Your task to perform on an android device: toggle notification dots Image 0: 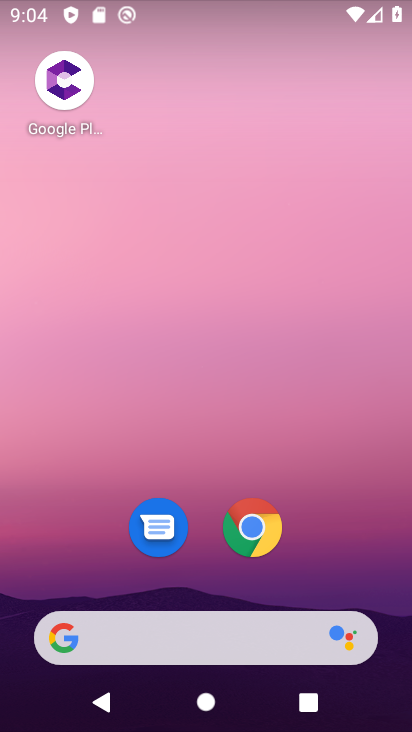
Step 0: click (244, 529)
Your task to perform on an android device: toggle notification dots Image 1: 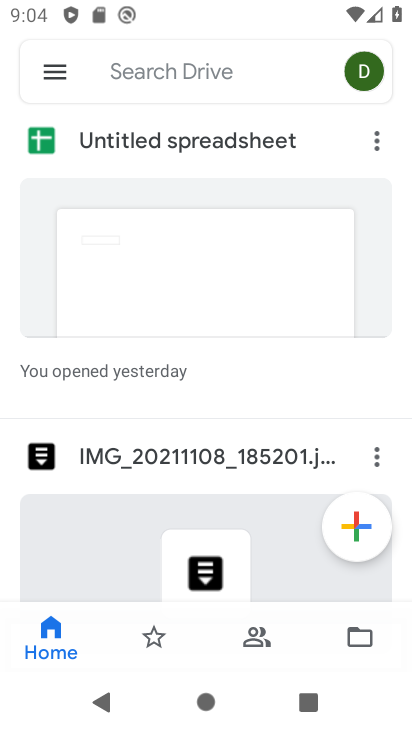
Step 1: press home button
Your task to perform on an android device: toggle notification dots Image 2: 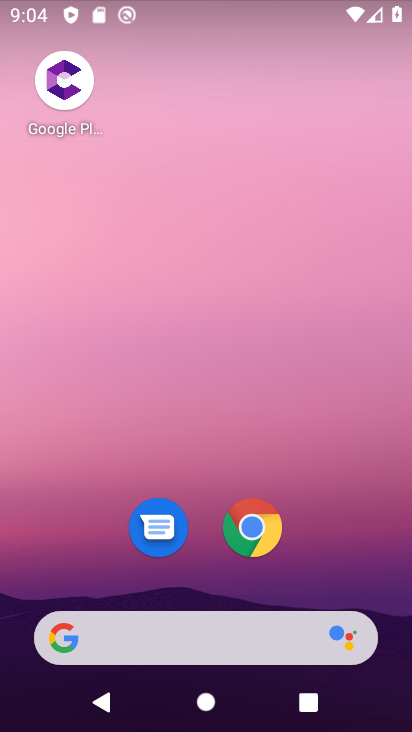
Step 2: drag from (389, 708) to (385, 276)
Your task to perform on an android device: toggle notification dots Image 3: 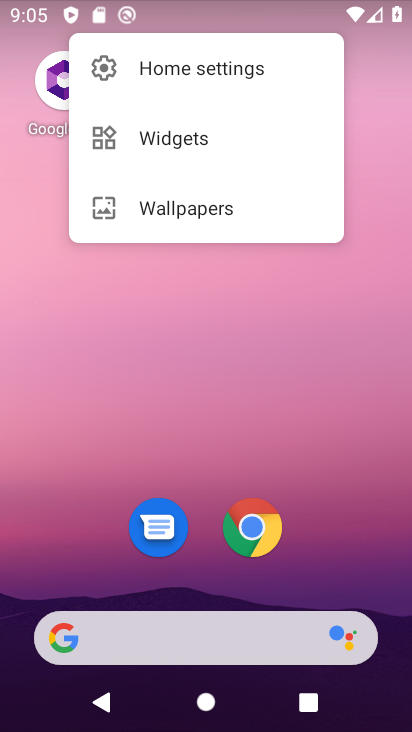
Step 3: press home button
Your task to perform on an android device: toggle notification dots Image 4: 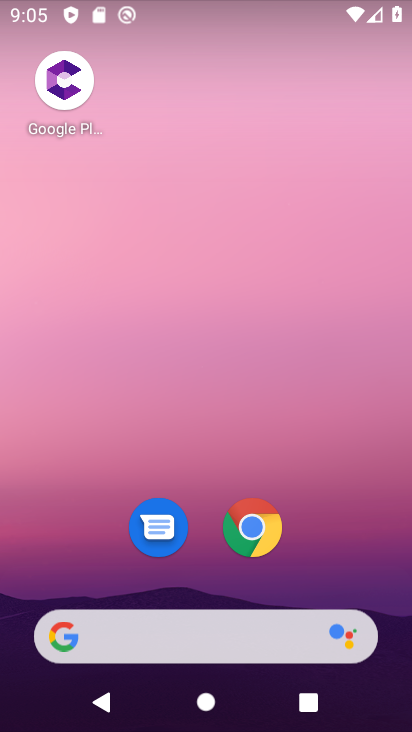
Step 4: drag from (400, 716) to (354, 222)
Your task to perform on an android device: toggle notification dots Image 5: 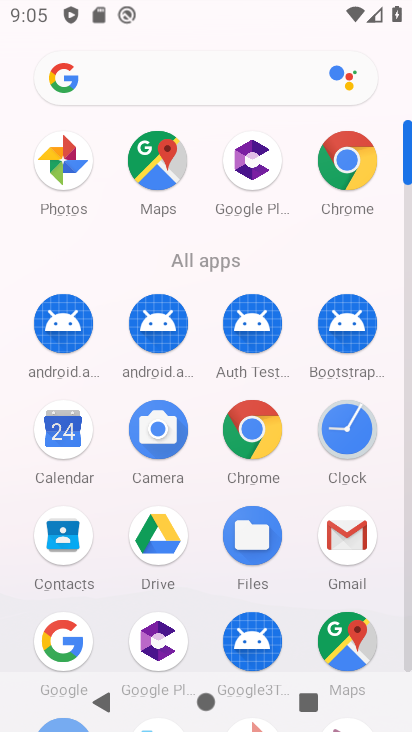
Step 5: drag from (199, 659) to (184, 315)
Your task to perform on an android device: toggle notification dots Image 6: 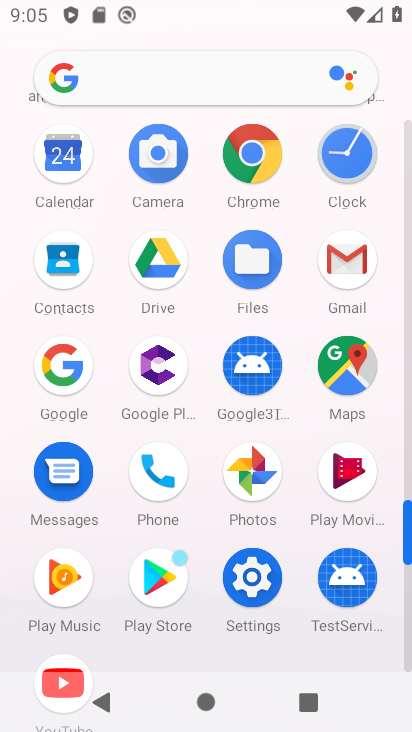
Step 6: click (244, 584)
Your task to perform on an android device: toggle notification dots Image 7: 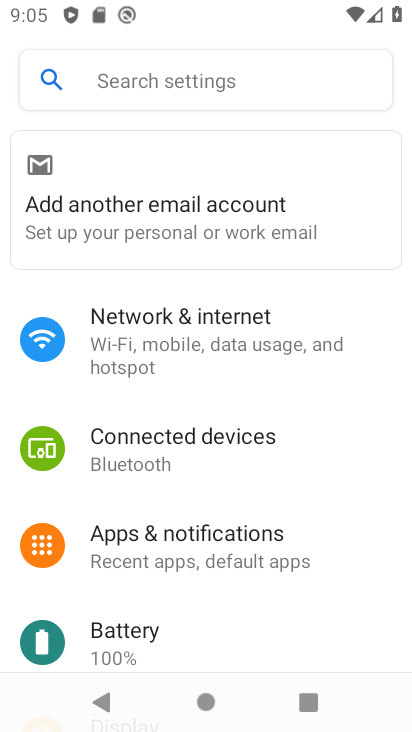
Step 7: click (162, 532)
Your task to perform on an android device: toggle notification dots Image 8: 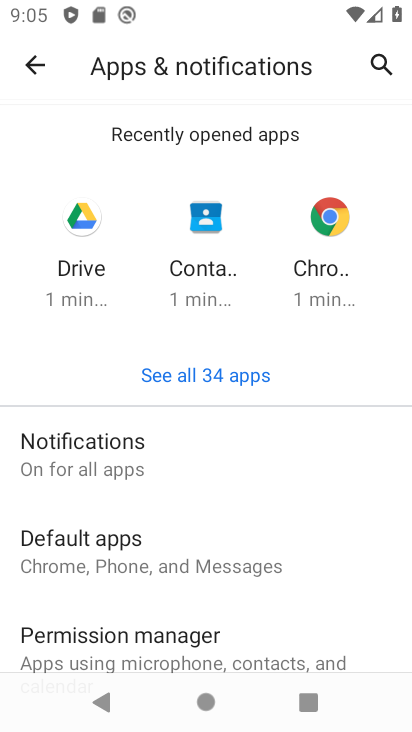
Step 8: click (91, 449)
Your task to perform on an android device: toggle notification dots Image 9: 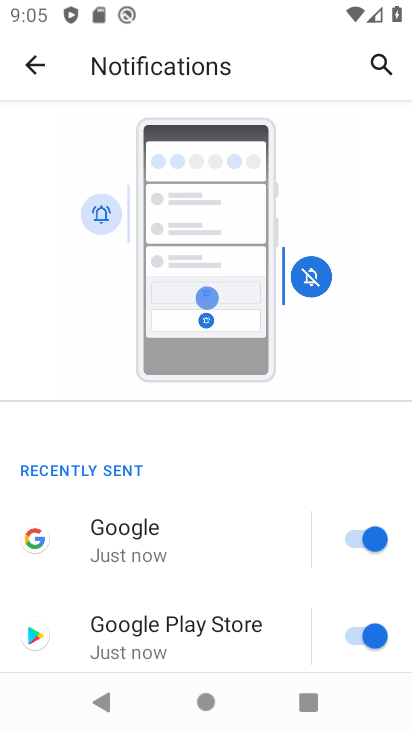
Step 9: drag from (287, 635) to (263, 197)
Your task to perform on an android device: toggle notification dots Image 10: 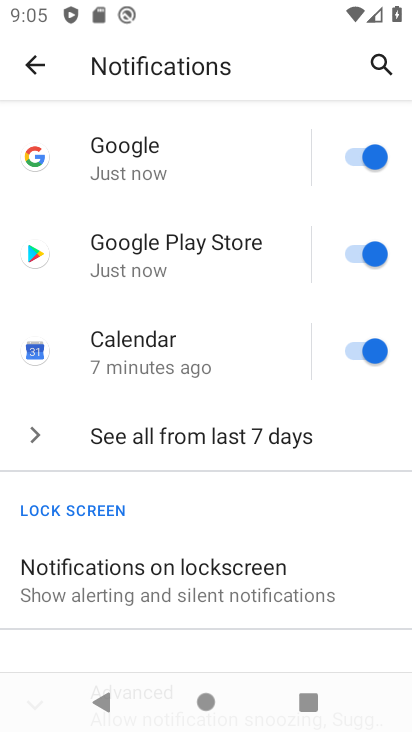
Step 10: click (193, 573)
Your task to perform on an android device: toggle notification dots Image 11: 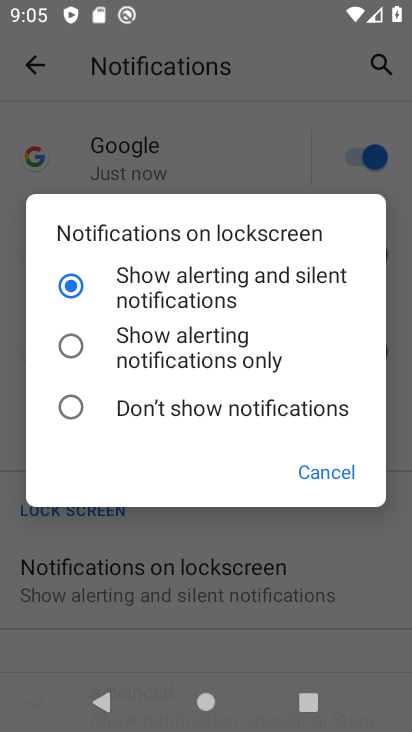
Step 11: press back button
Your task to perform on an android device: toggle notification dots Image 12: 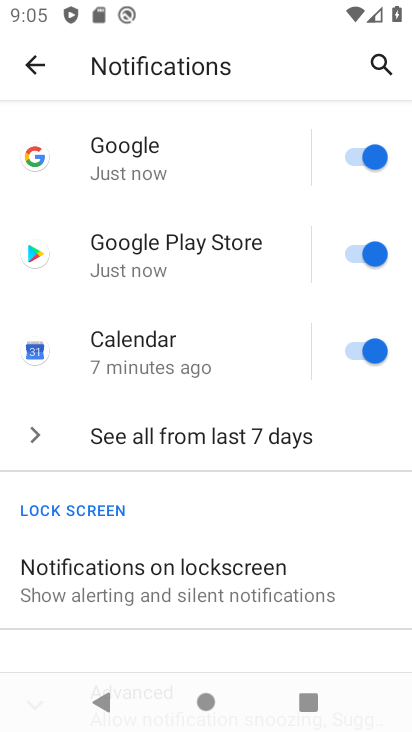
Step 12: drag from (263, 625) to (227, 204)
Your task to perform on an android device: toggle notification dots Image 13: 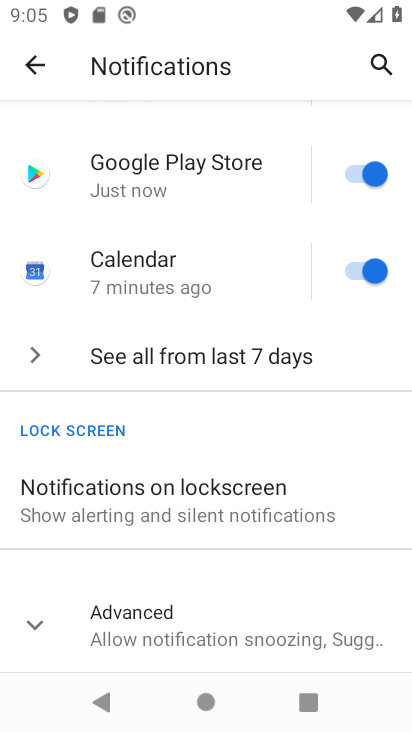
Step 13: drag from (205, 626) to (209, 354)
Your task to perform on an android device: toggle notification dots Image 14: 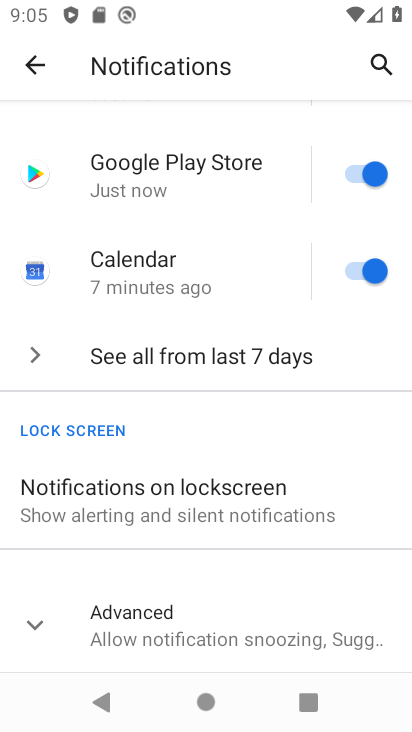
Step 14: click (26, 622)
Your task to perform on an android device: toggle notification dots Image 15: 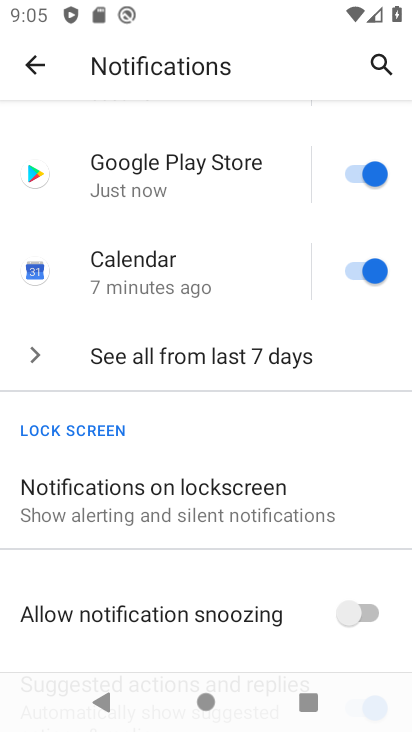
Step 15: drag from (246, 639) to (230, 323)
Your task to perform on an android device: toggle notification dots Image 16: 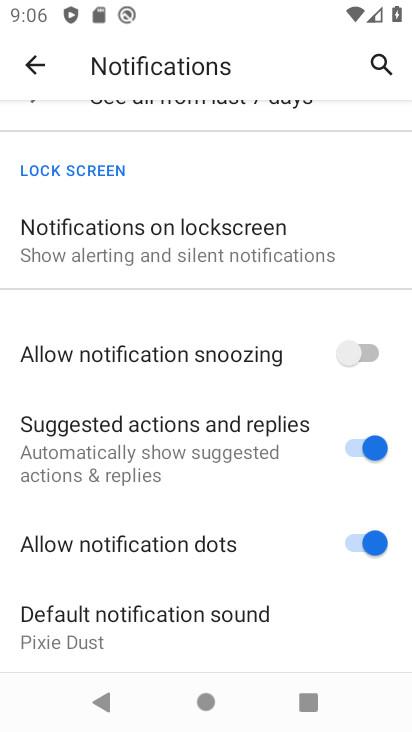
Step 16: click (350, 544)
Your task to perform on an android device: toggle notification dots Image 17: 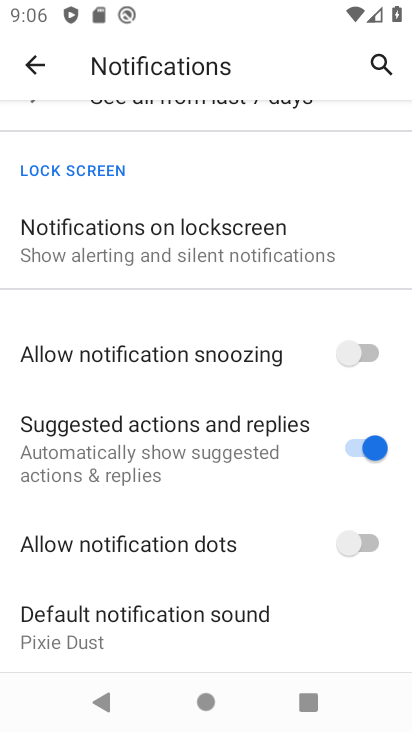
Step 17: task complete